Your task to perform on an android device: Turn off the flashlight Image 0: 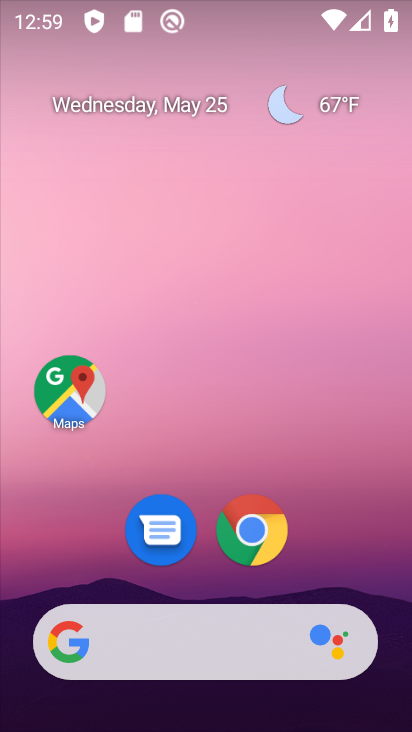
Step 0: drag from (340, 543) to (319, 61)
Your task to perform on an android device: Turn off the flashlight Image 1: 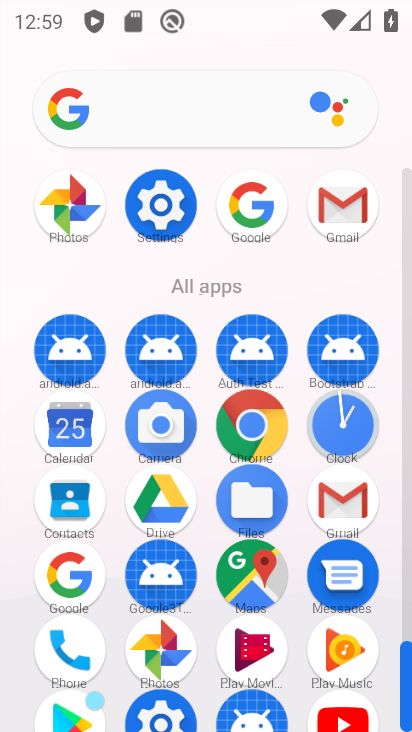
Step 1: click (159, 204)
Your task to perform on an android device: Turn off the flashlight Image 2: 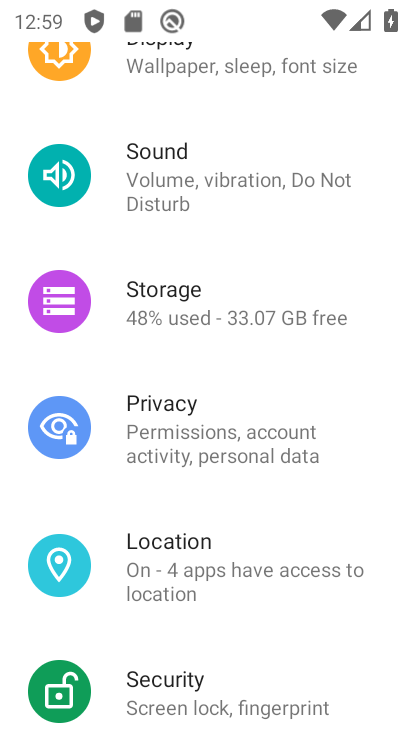
Step 2: drag from (214, 249) to (210, 352)
Your task to perform on an android device: Turn off the flashlight Image 3: 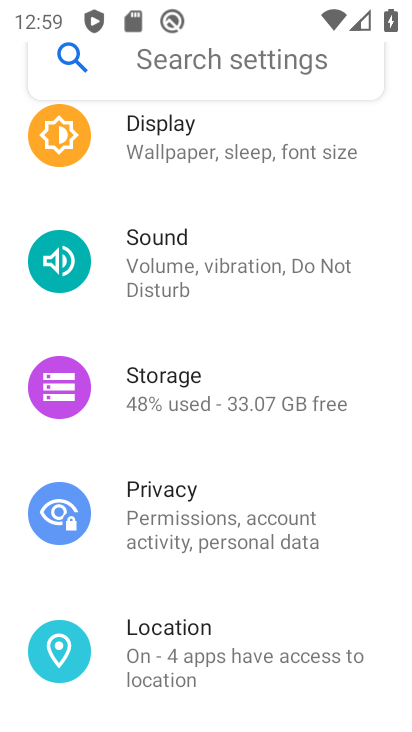
Step 3: click (238, 150)
Your task to perform on an android device: Turn off the flashlight Image 4: 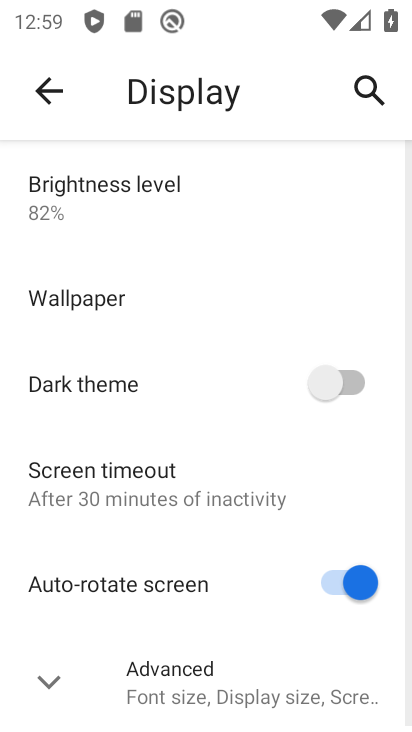
Step 4: drag from (173, 375) to (219, 274)
Your task to perform on an android device: Turn off the flashlight Image 5: 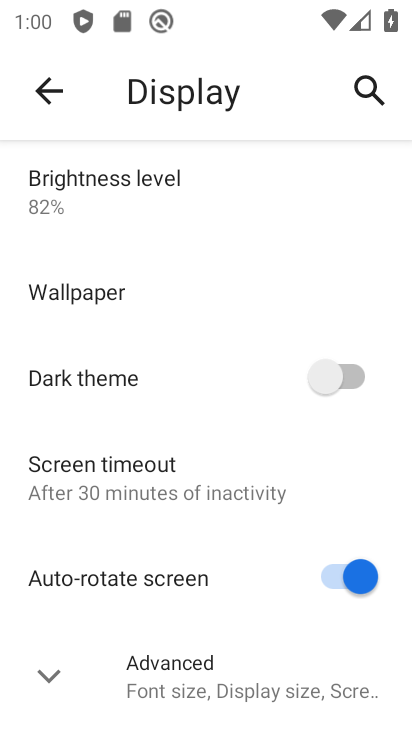
Step 5: click (220, 494)
Your task to perform on an android device: Turn off the flashlight Image 6: 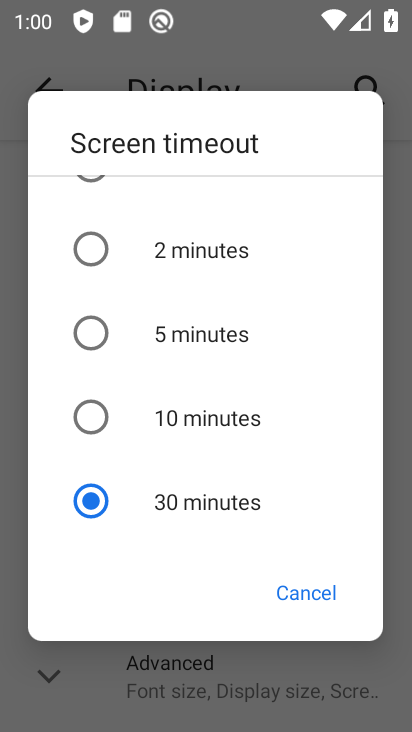
Step 6: click (294, 593)
Your task to perform on an android device: Turn off the flashlight Image 7: 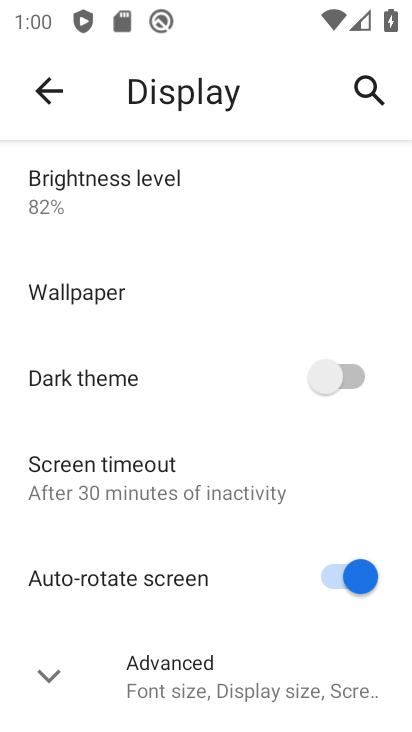
Step 7: task complete